Your task to perform on an android device: Open privacy settings Image 0: 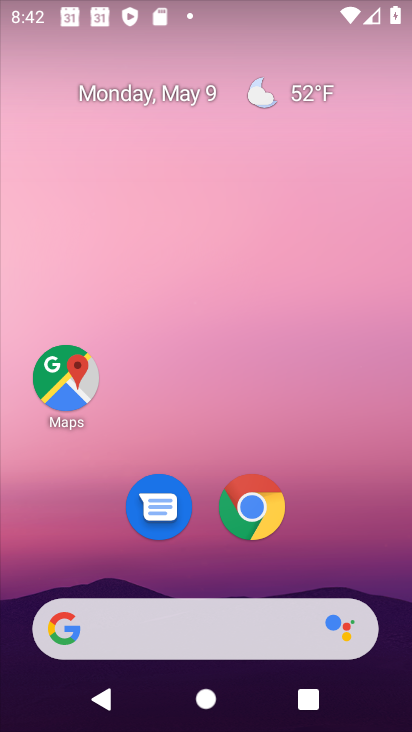
Step 0: drag from (340, 552) to (241, 68)
Your task to perform on an android device: Open privacy settings Image 1: 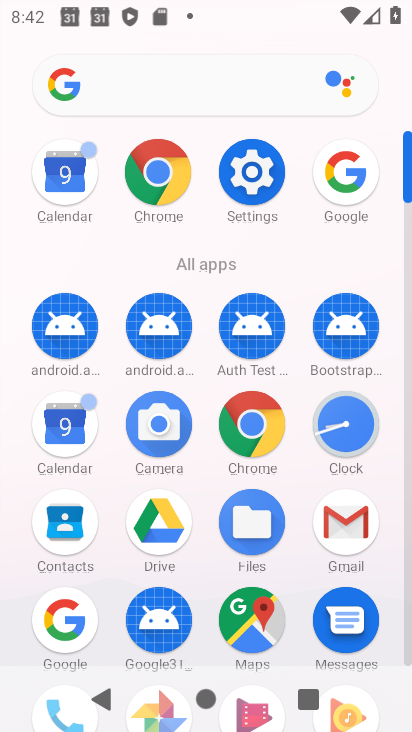
Step 1: click (251, 174)
Your task to perform on an android device: Open privacy settings Image 2: 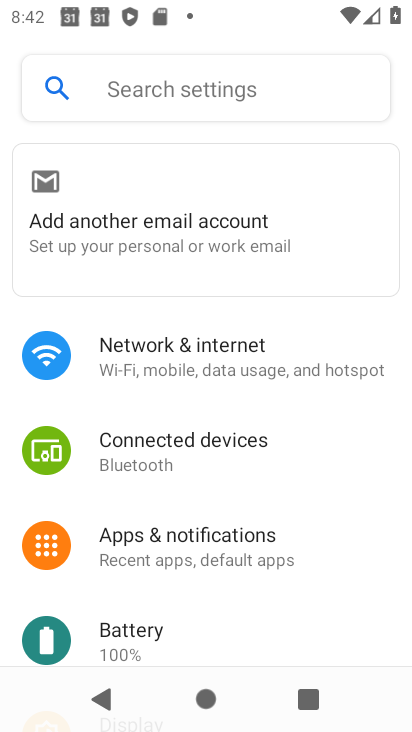
Step 2: drag from (253, 502) to (305, 410)
Your task to perform on an android device: Open privacy settings Image 3: 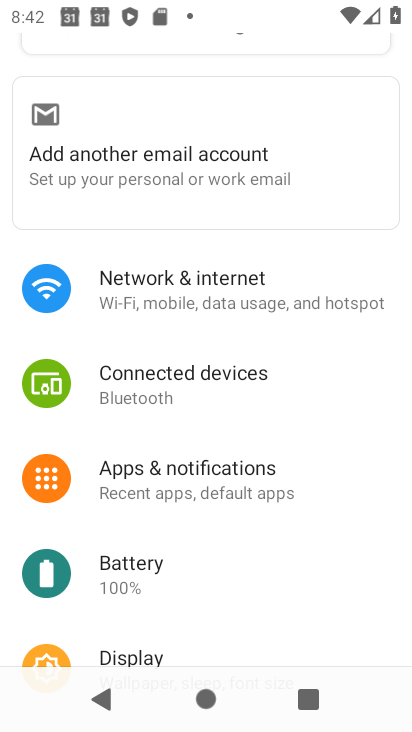
Step 3: drag from (167, 557) to (247, 449)
Your task to perform on an android device: Open privacy settings Image 4: 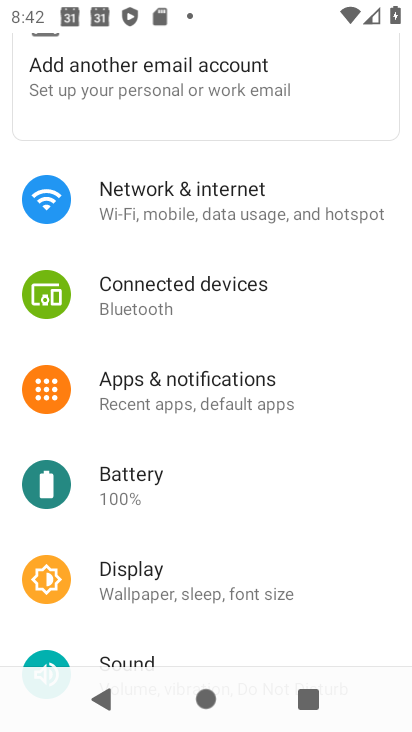
Step 4: drag from (194, 537) to (260, 415)
Your task to perform on an android device: Open privacy settings Image 5: 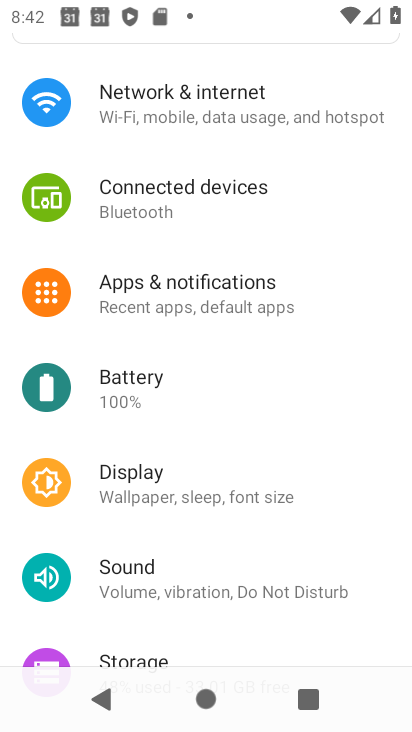
Step 5: drag from (171, 624) to (234, 506)
Your task to perform on an android device: Open privacy settings Image 6: 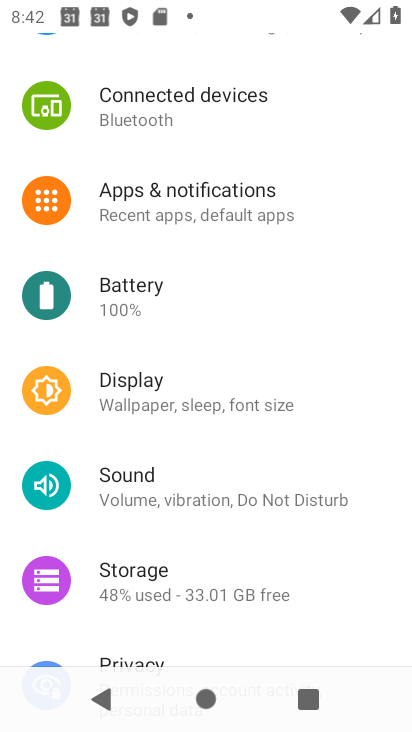
Step 6: drag from (190, 626) to (281, 509)
Your task to perform on an android device: Open privacy settings Image 7: 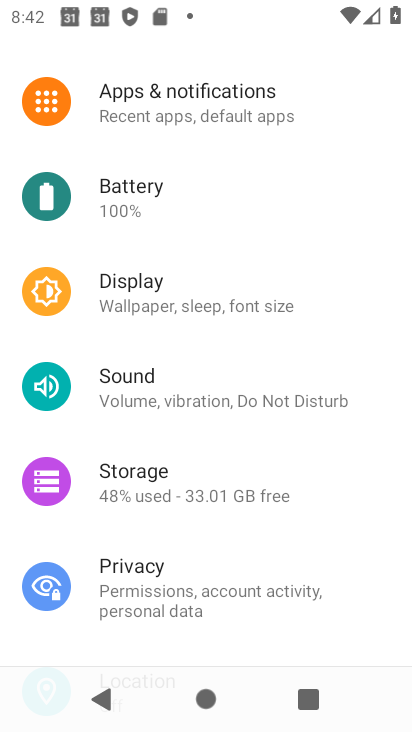
Step 7: click (154, 561)
Your task to perform on an android device: Open privacy settings Image 8: 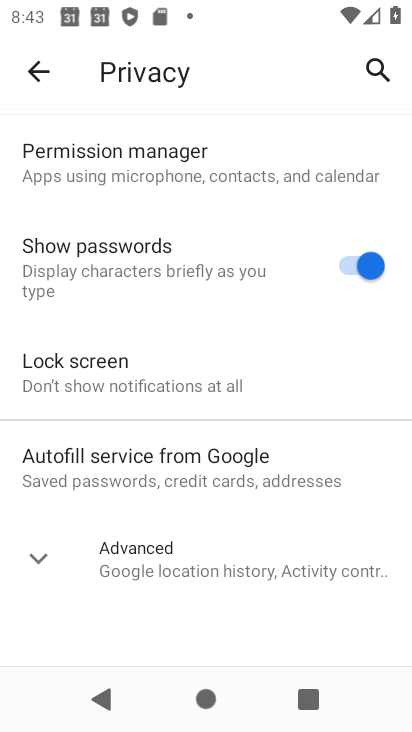
Step 8: task complete